Your task to perform on an android device: check google app version Image 0: 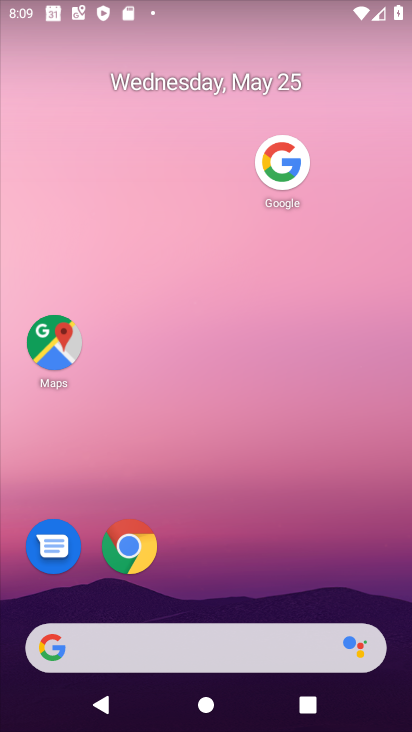
Step 0: click (295, 173)
Your task to perform on an android device: check google app version Image 1: 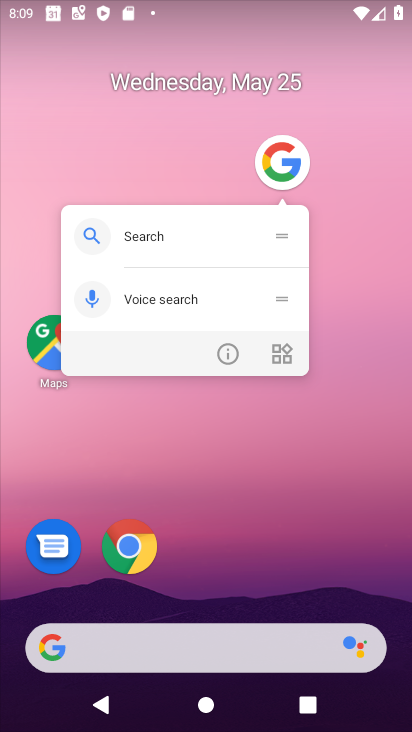
Step 1: click (228, 345)
Your task to perform on an android device: check google app version Image 2: 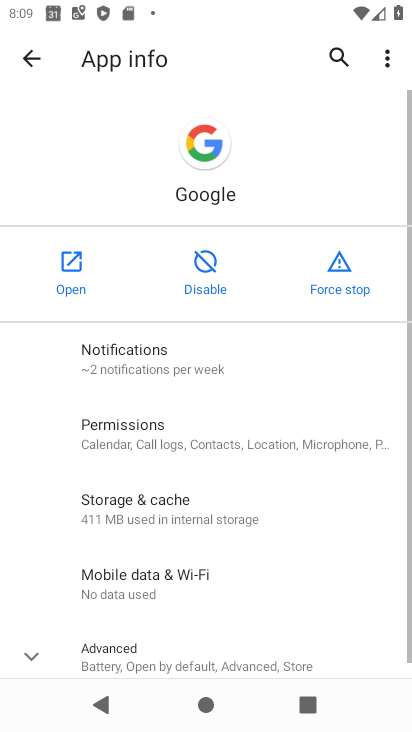
Step 2: drag from (225, 620) to (411, 53)
Your task to perform on an android device: check google app version Image 3: 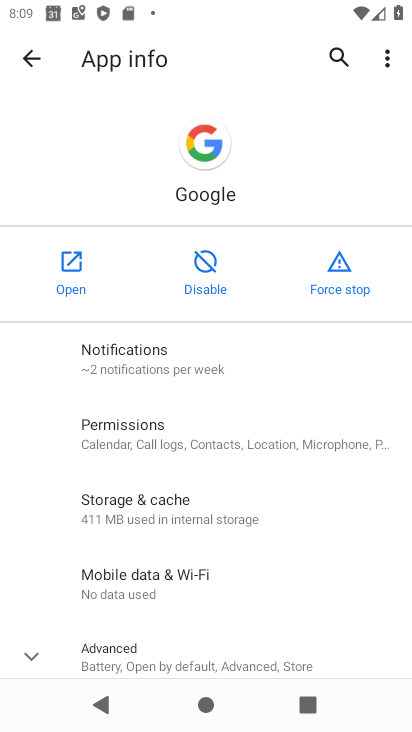
Step 3: click (115, 643)
Your task to perform on an android device: check google app version Image 4: 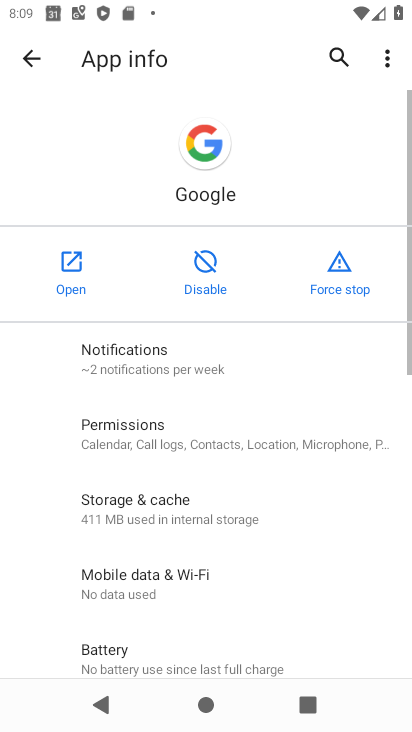
Step 4: task complete